Your task to perform on an android device: change alarm snooze length Image 0: 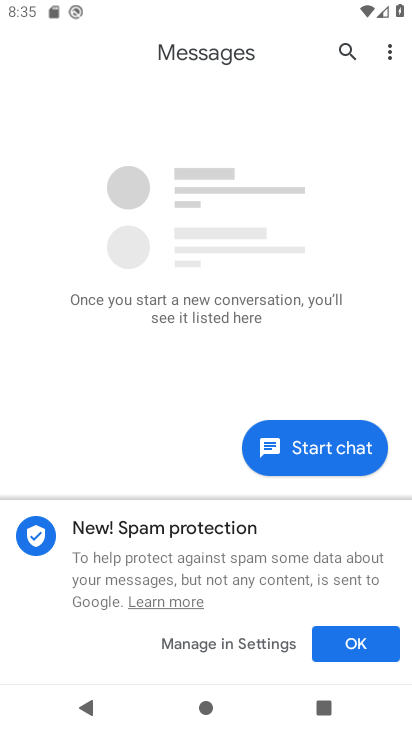
Step 0: press home button
Your task to perform on an android device: change alarm snooze length Image 1: 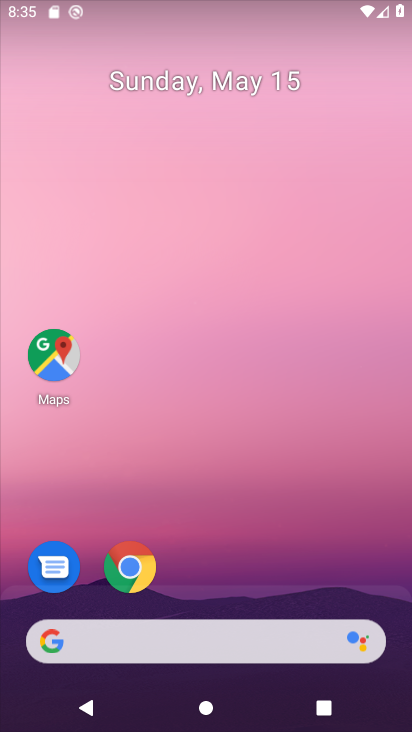
Step 1: drag from (196, 619) to (319, 88)
Your task to perform on an android device: change alarm snooze length Image 2: 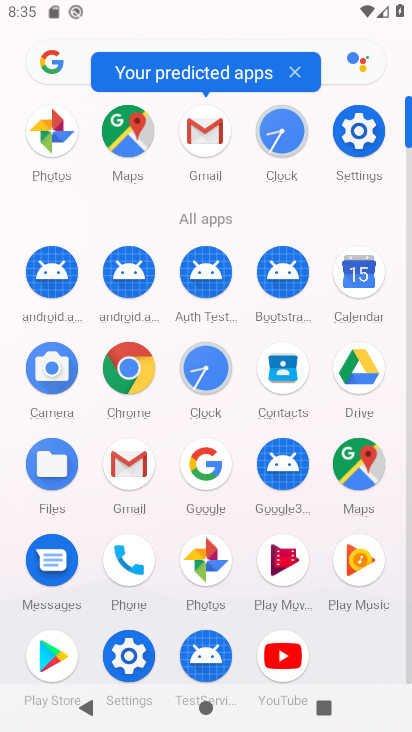
Step 2: click (211, 373)
Your task to perform on an android device: change alarm snooze length Image 3: 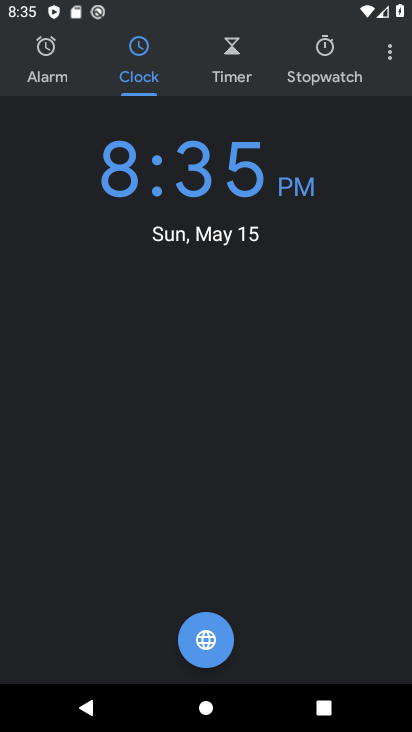
Step 3: click (394, 47)
Your task to perform on an android device: change alarm snooze length Image 4: 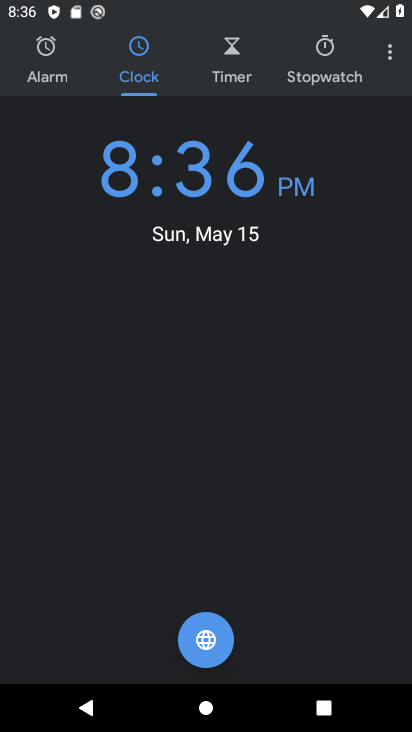
Step 4: click (391, 58)
Your task to perform on an android device: change alarm snooze length Image 5: 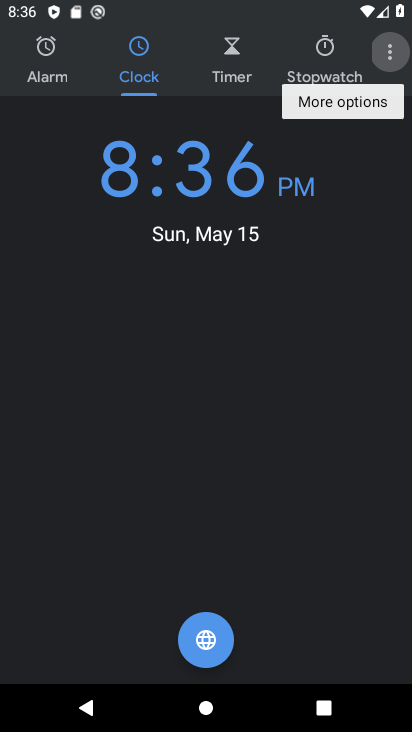
Step 5: click (390, 58)
Your task to perform on an android device: change alarm snooze length Image 6: 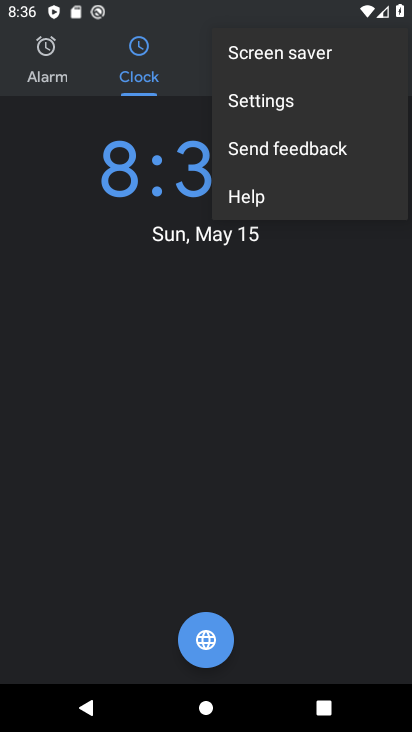
Step 6: click (352, 98)
Your task to perform on an android device: change alarm snooze length Image 7: 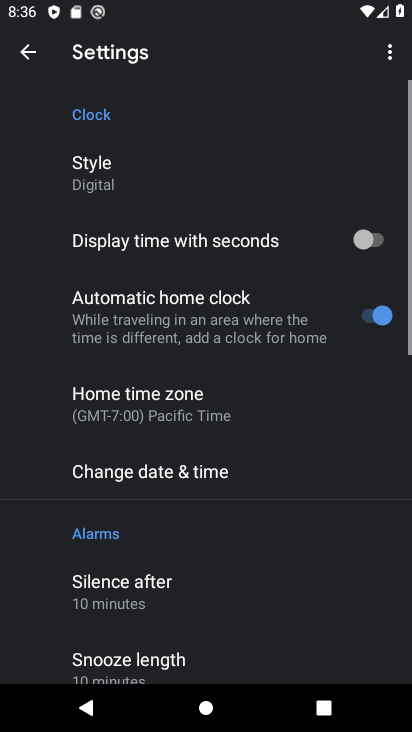
Step 7: drag from (242, 476) to (368, 129)
Your task to perform on an android device: change alarm snooze length Image 8: 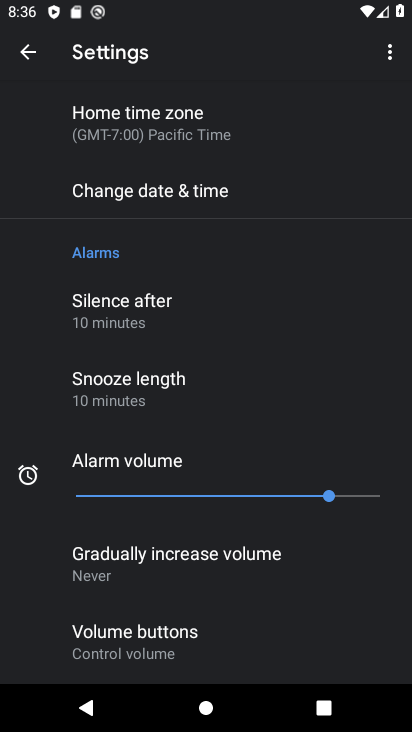
Step 8: click (228, 500)
Your task to perform on an android device: change alarm snooze length Image 9: 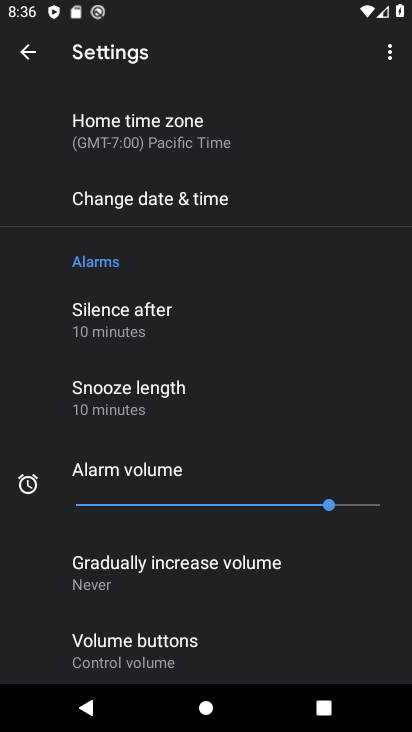
Step 9: click (201, 413)
Your task to perform on an android device: change alarm snooze length Image 10: 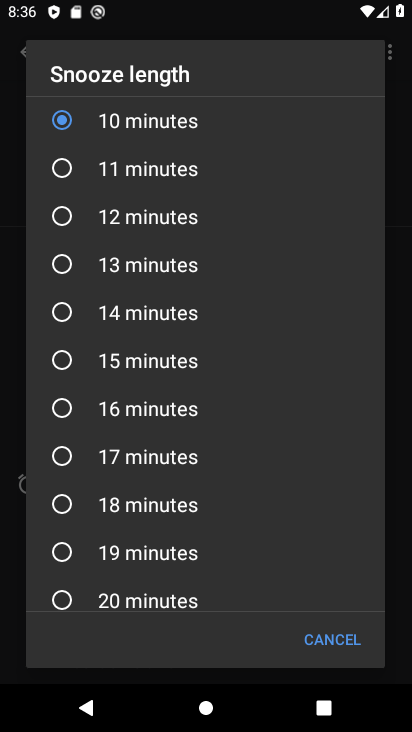
Step 10: click (187, 602)
Your task to perform on an android device: change alarm snooze length Image 11: 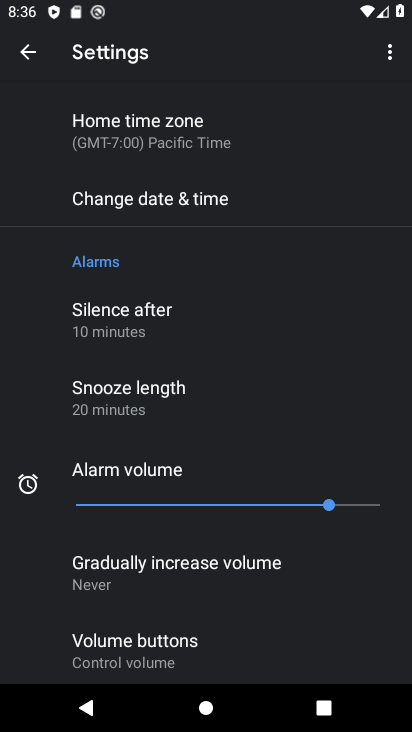
Step 11: task complete